Your task to perform on an android device: Open Yahoo.com Image 0: 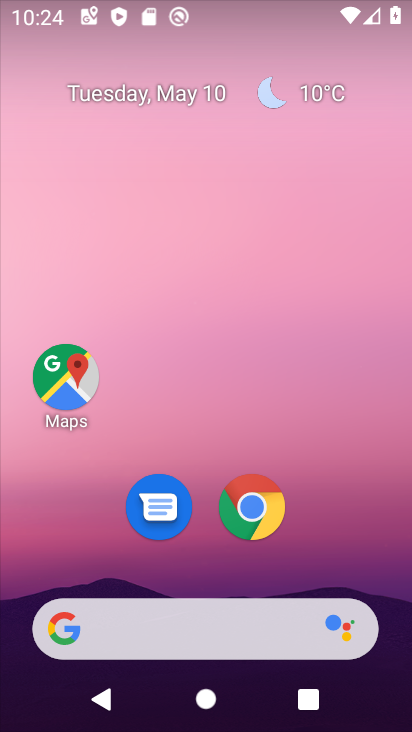
Step 0: click (251, 529)
Your task to perform on an android device: Open Yahoo.com Image 1: 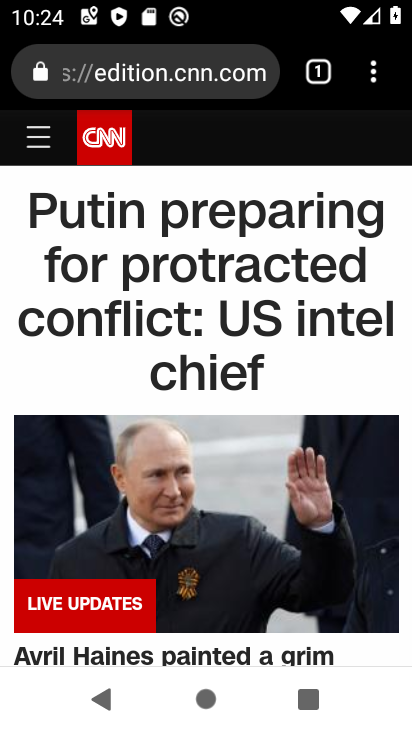
Step 1: click (191, 82)
Your task to perform on an android device: Open Yahoo.com Image 2: 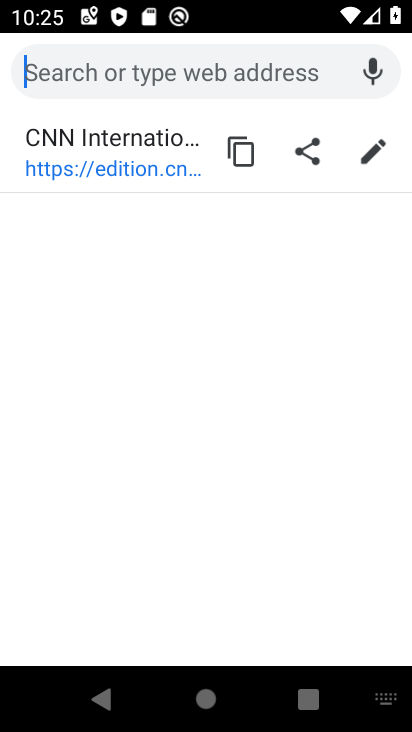
Step 2: type "yahoo.com"
Your task to perform on an android device: Open Yahoo.com Image 3: 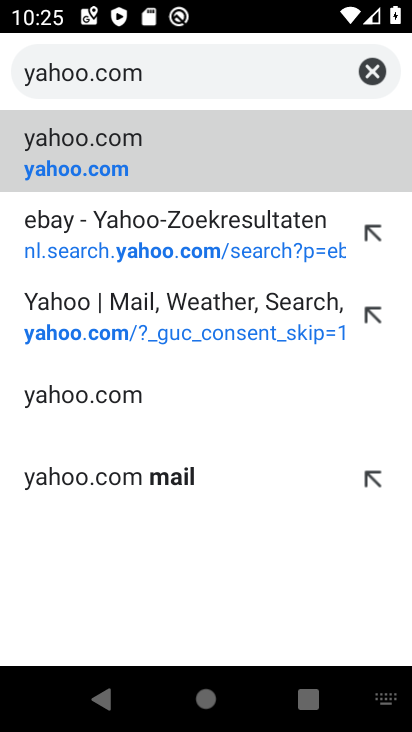
Step 3: type "-09876"
Your task to perform on an android device: Open Yahoo.com Image 4: 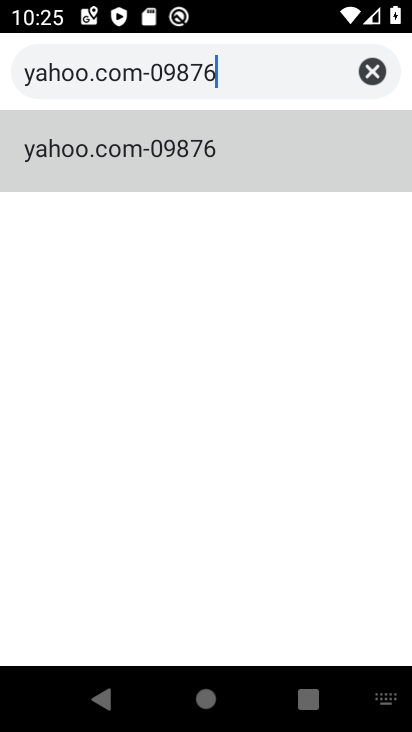
Step 4: click (382, 68)
Your task to perform on an android device: Open Yahoo.com Image 5: 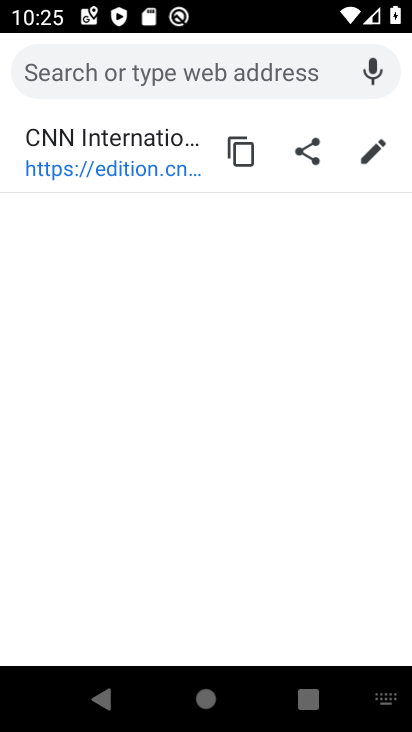
Step 5: type "yahoo.com"
Your task to perform on an android device: Open Yahoo.com Image 6: 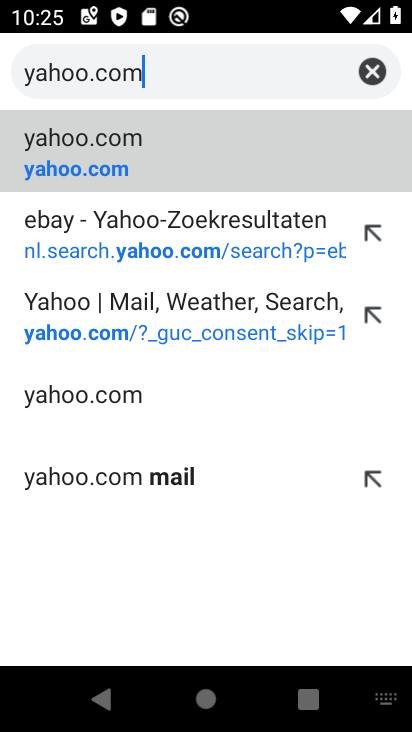
Step 6: click (86, 140)
Your task to perform on an android device: Open Yahoo.com Image 7: 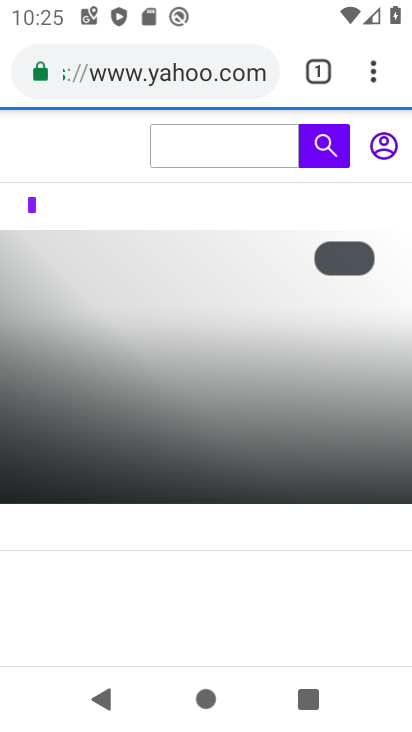
Step 7: task complete